Your task to perform on an android device: Go to internet settings Image 0: 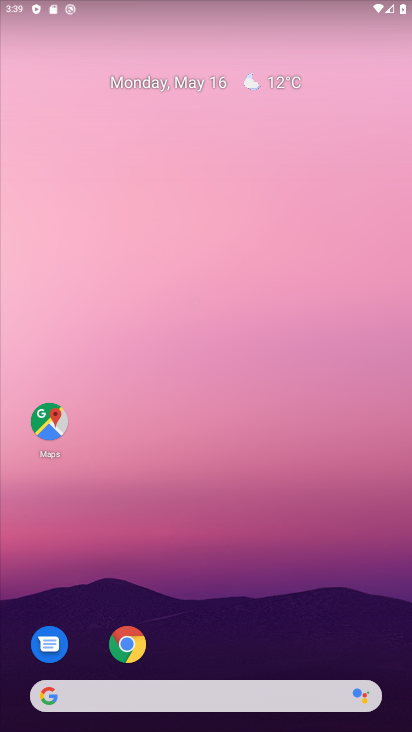
Step 0: drag from (146, 615) to (268, 117)
Your task to perform on an android device: Go to internet settings Image 1: 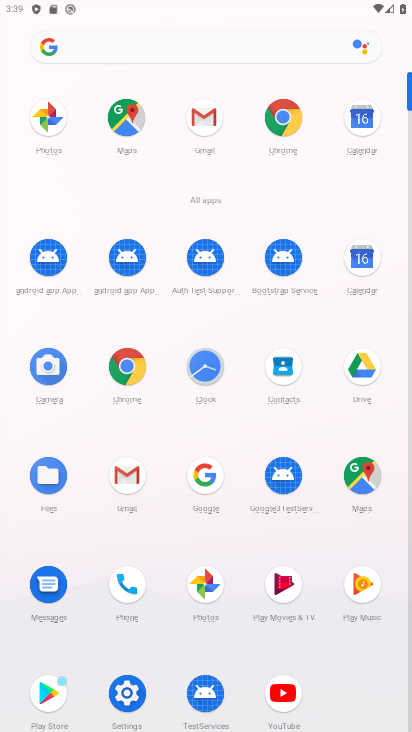
Step 1: click (122, 696)
Your task to perform on an android device: Go to internet settings Image 2: 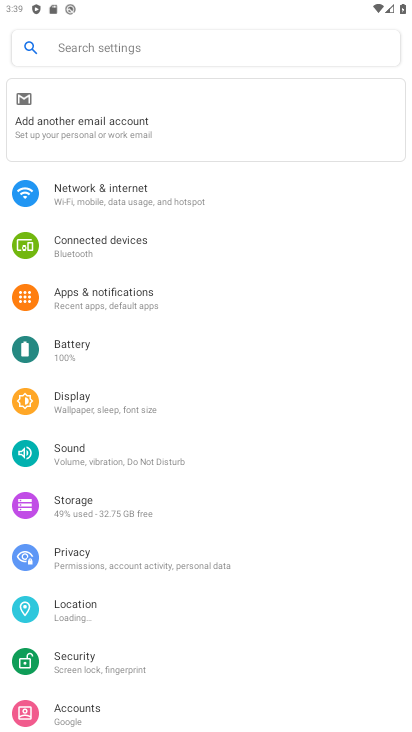
Step 2: click (133, 198)
Your task to perform on an android device: Go to internet settings Image 3: 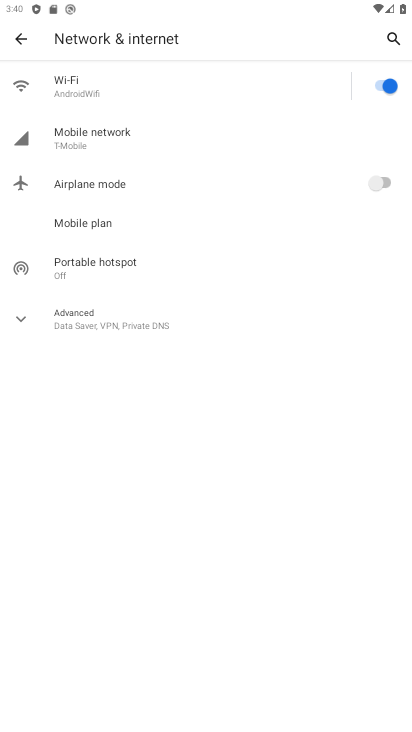
Step 3: task complete